Your task to perform on an android device: install app "Chime – Mobile Banking" Image 0: 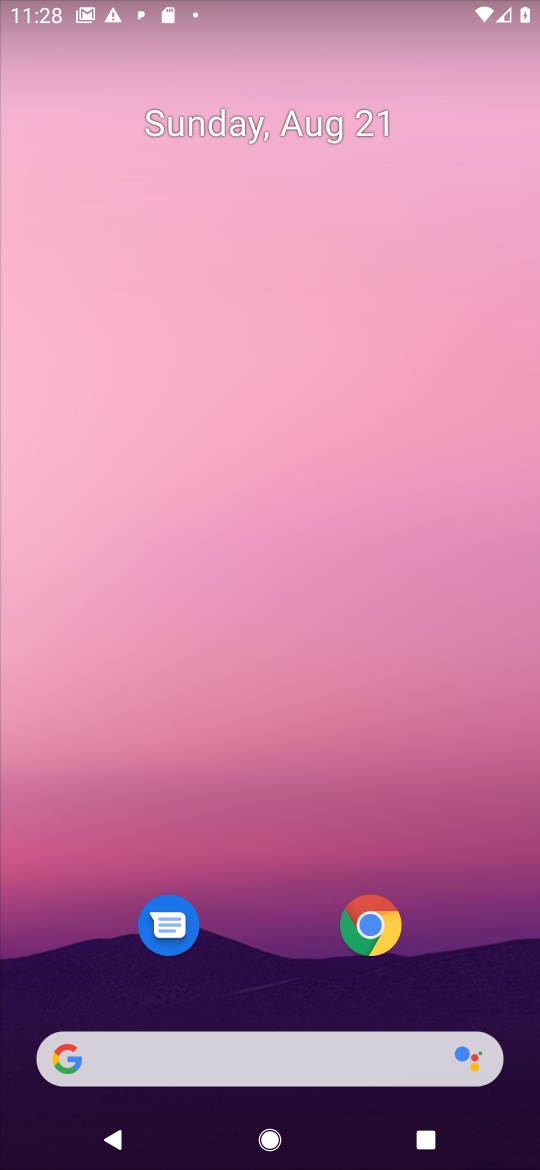
Step 0: drag from (245, 978) to (327, 16)
Your task to perform on an android device: install app "Chime – Mobile Banking" Image 1: 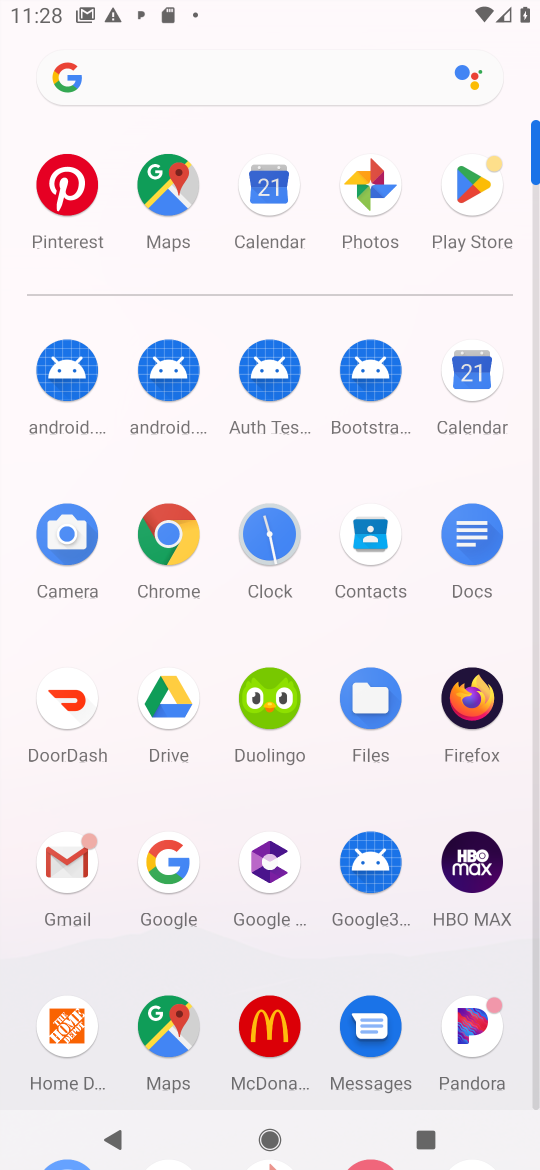
Step 1: click (476, 208)
Your task to perform on an android device: install app "Chime – Mobile Banking" Image 2: 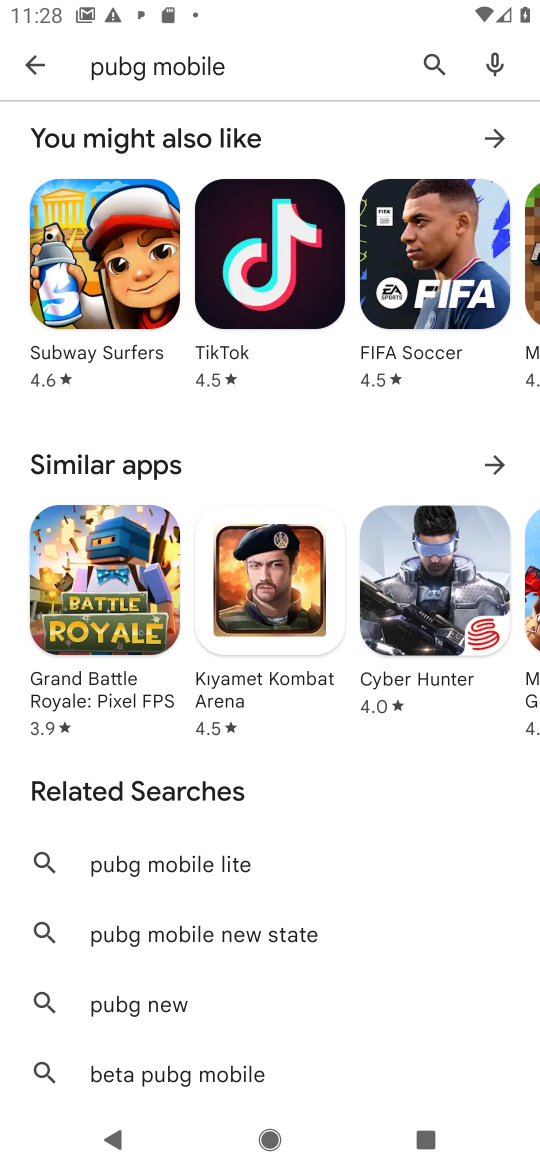
Step 2: click (437, 52)
Your task to perform on an android device: install app "Chime – Mobile Banking" Image 3: 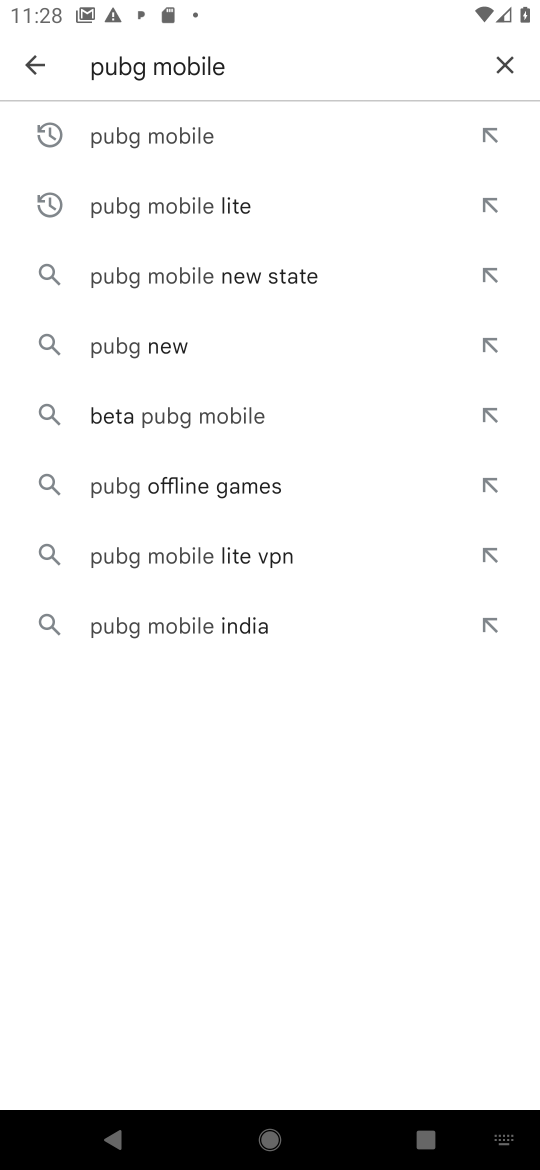
Step 3: click (512, 74)
Your task to perform on an android device: install app "Chime – Mobile Banking" Image 4: 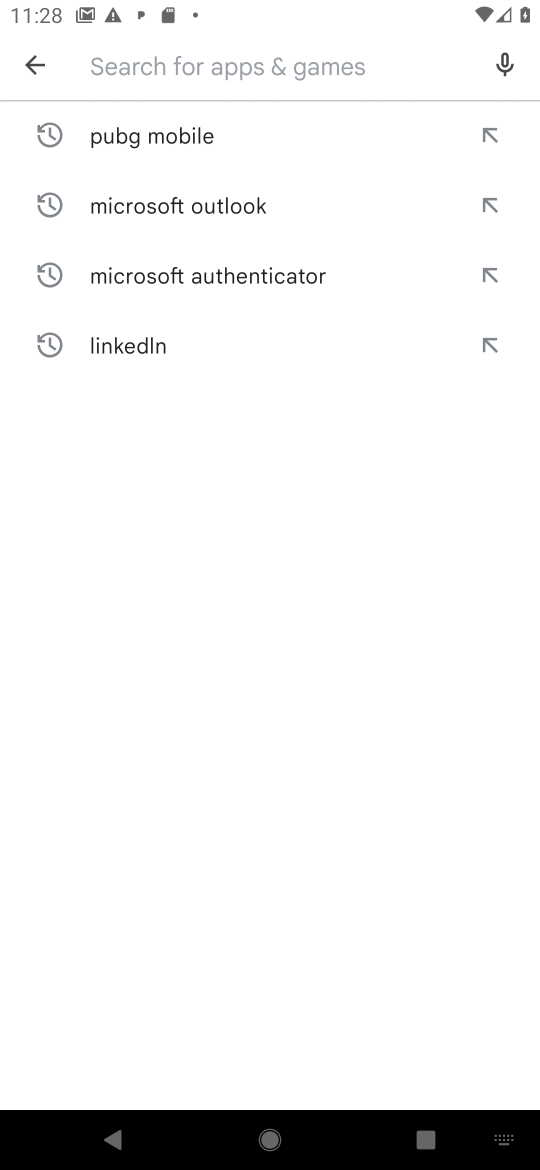
Step 4: type "chime"
Your task to perform on an android device: install app "Chime – Mobile Banking" Image 5: 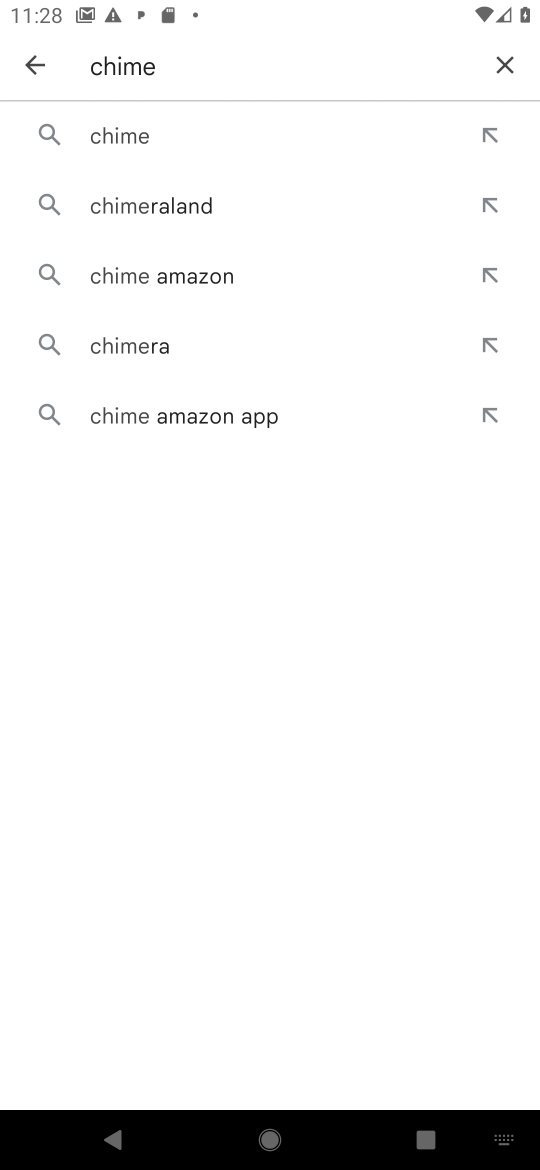
Step 5: click (197, 132)
Your task to perform on an android device: install app "Chime – Mobile Banking" Image 6: 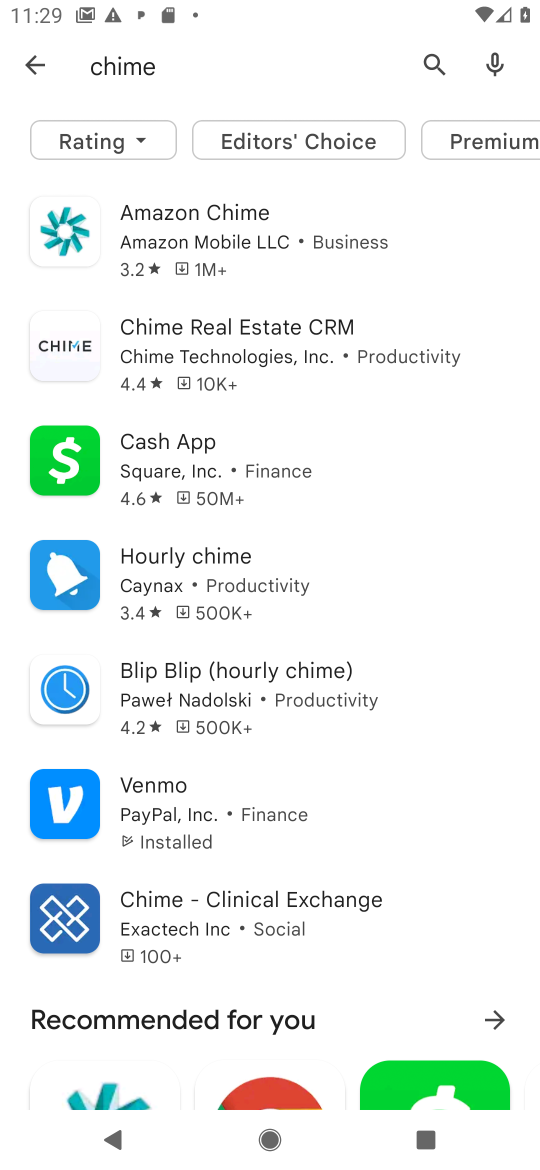
Step 6: task complete